Your task to perform on an android device: Go to privacy settings Image 0: 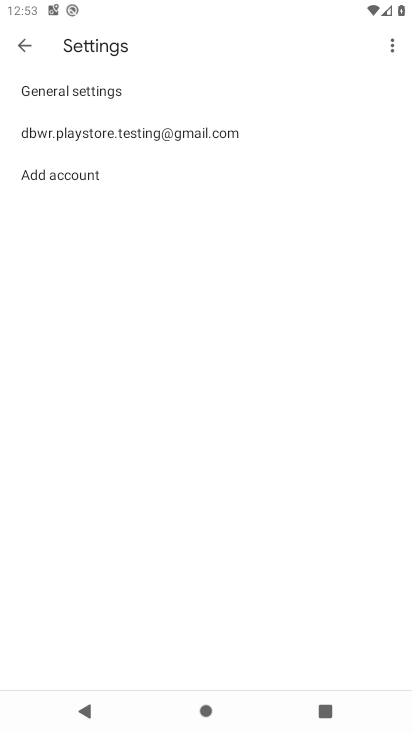
Step 0: press home button
Your task to perform on an android device: Go to privacy settings Image 1: 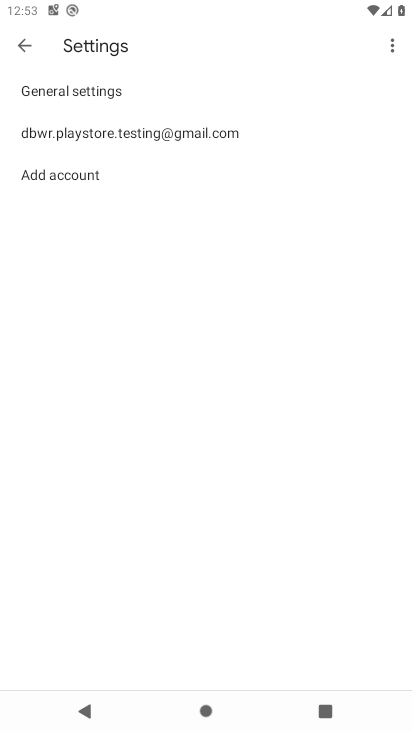
Step 1: drag from (184, 544) to (289, 212)
Your task to perform on an android device: Go to privacy settings Image 2: 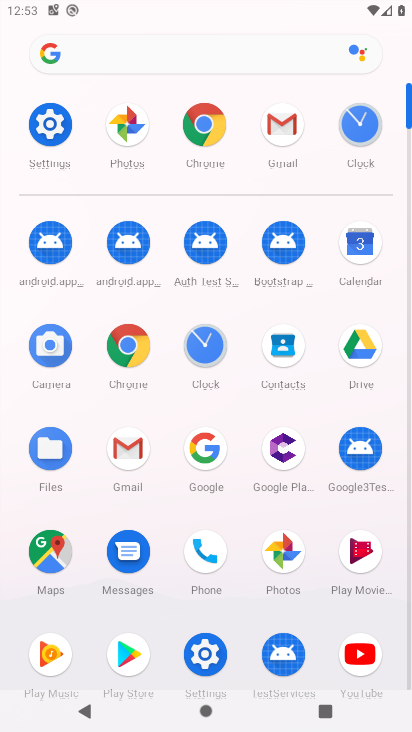
Step 2: click (39, 114)
Your task to perform on an android device: Go to privacy settings Image 3: 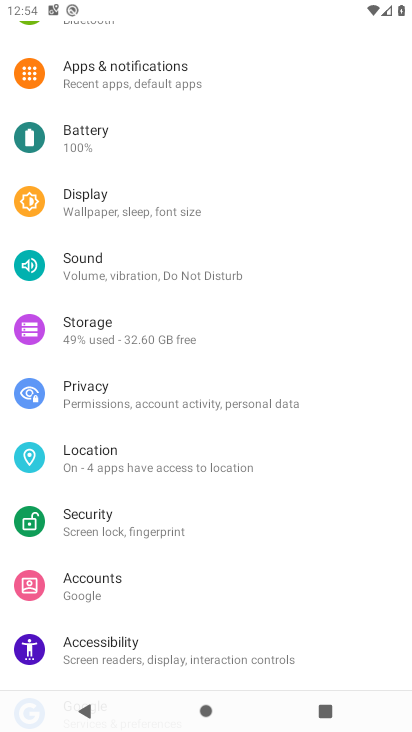
Step 3: click (112, 398)
Your task to perform on an android device: Go to privacy settings Image 4: 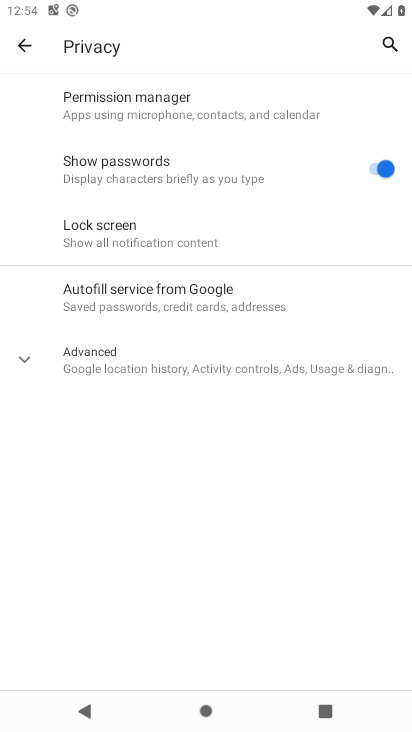
Step 4: task complete